Your task to perform on an android device: Go to location settings Image 0: 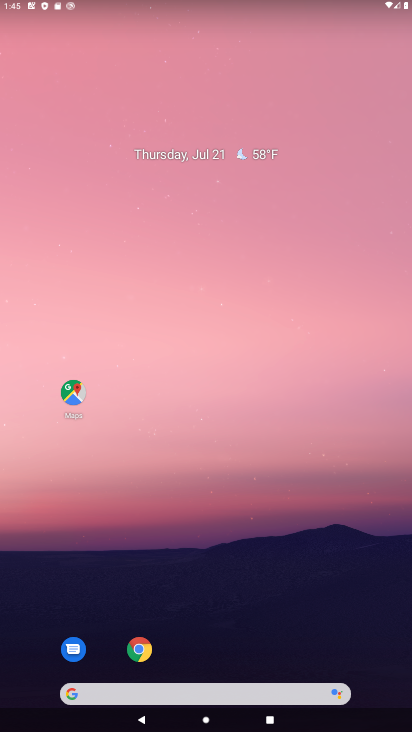
Step 0: drag from (304, 649) to (210, 2)
Your task to perform on an android device: Go to location settings Image 1: 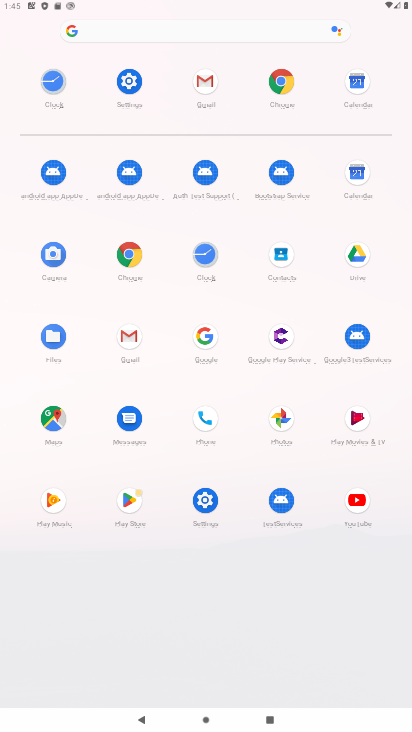
Step 1: click (139, 87)
Your task to perform on an android device: Go to location settings Image 2: 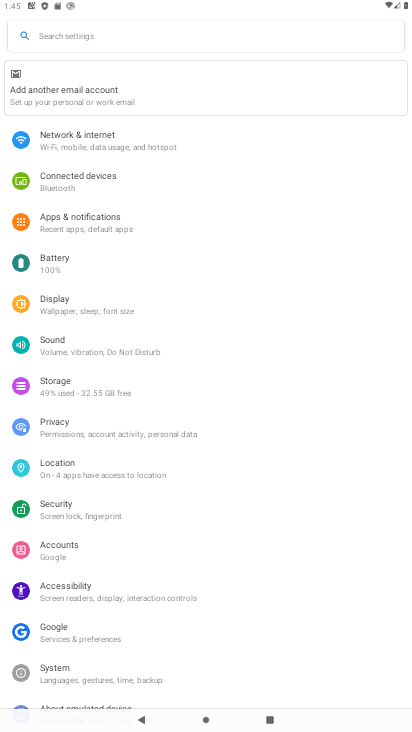
Step 2: click (133, 471)
Your task to perform on an android device: Go to location settings Image 3: 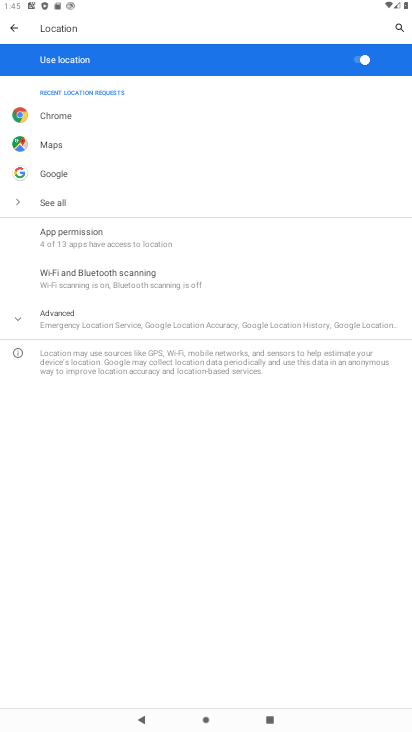
Step 3: task complete